Your task to perform on an android device: turn on priority inbox in the gmail app Image 0: 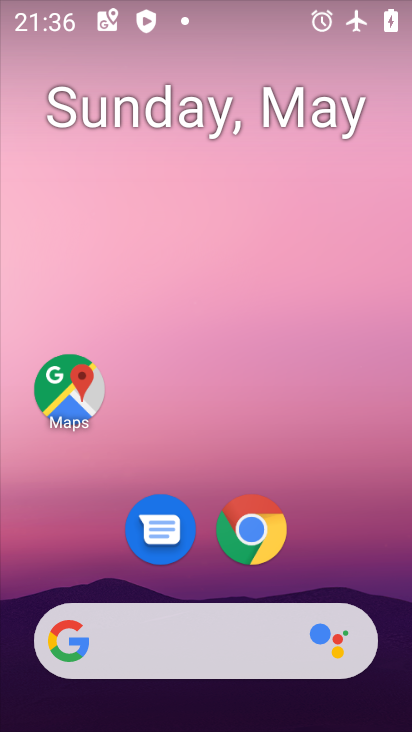
Step 0: drag from (361, 580) to (268, 30)
Your task to perform on an android device: turn on priority inbox in the gmail app Image 1: 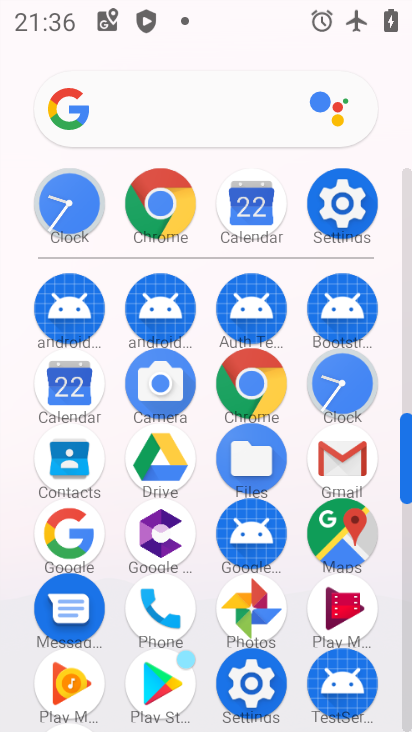
Step 1: click (340, 457)
Your task to perform on an android device: turn on priority inbox in the gmail app Image 2: 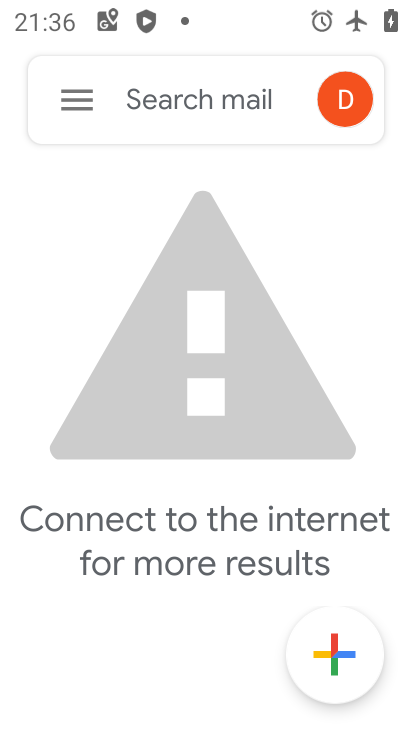
Step 2: click (55, 114)
Your task to perform on an android device: turn on priority inbox in the gmail app Image 3: 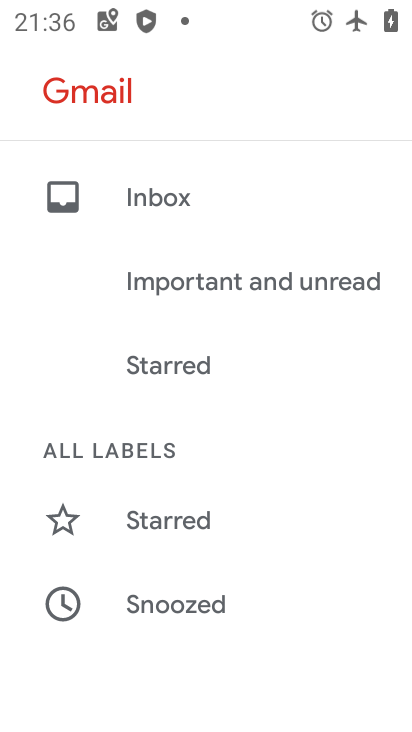
Step 3: drag from (206, 592) to (179, 136)
Your task to perform on an android device: turn on priority inbox in the gmail app Image 4: 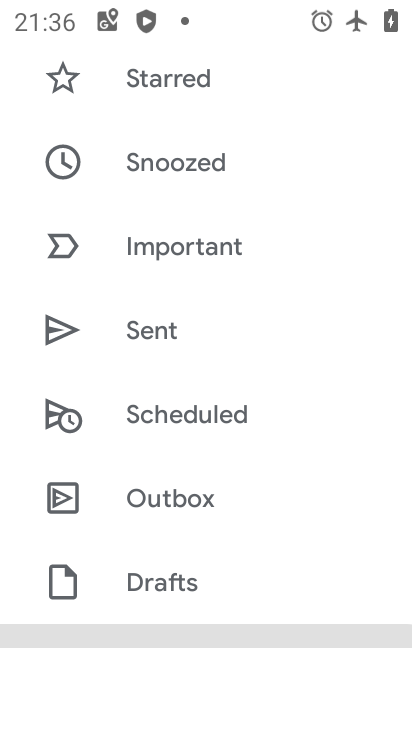
Step 4: drag from (188, 544) to (188, 114)
Your task to perform on an android device: turn on priority inbox in the gmail app Image 5: 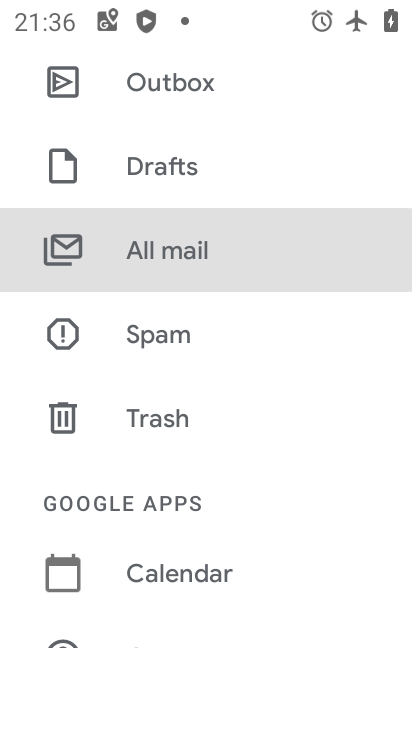
Step 5: drag from (196, 516) to (172, 60)
Your task to perform on an android device: turn on priority inbox in the gmail app Image 6: 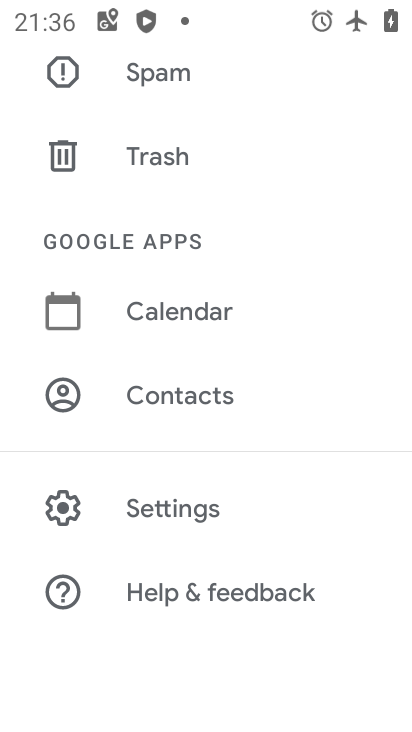
Step 6: click (162, 511)
Your task to perform on an android device: turn on priority inbox in the gmail app Image 7: 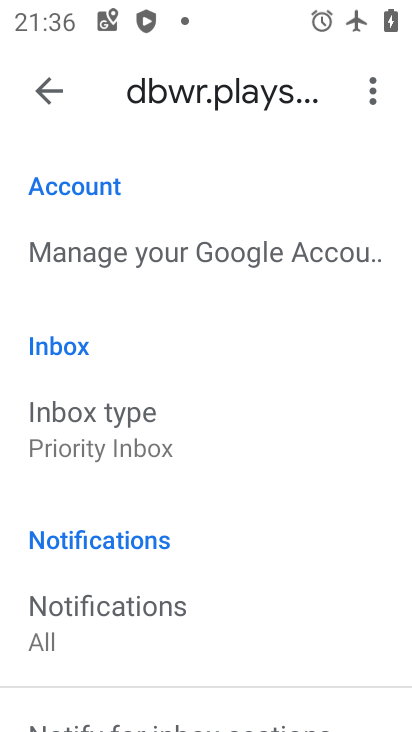
Step 7: drag from (220, 564) to (212, 410)
Your task to perform on an android device: turn on priority inbox in the gmail app Image 8: 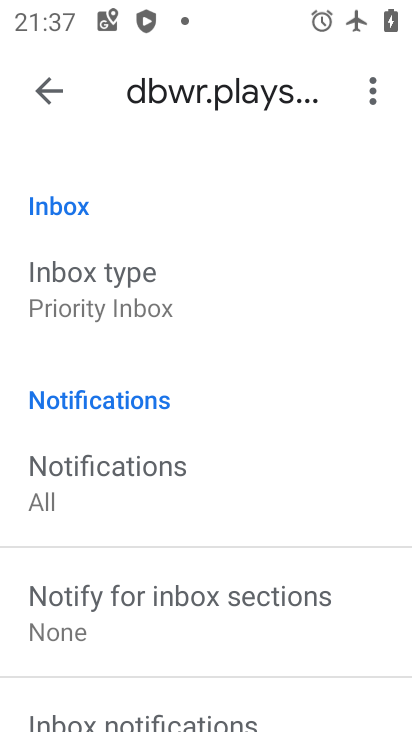
Step 8: click (52, 305)
Your task to perform on an android device: turn on priority inbox in the gmail app Image 9: 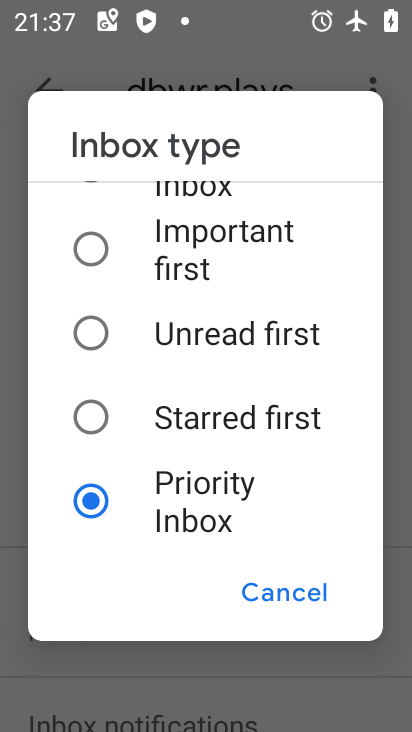
Step 9: task complete